Your task to perform on an android device: turn off translation in the chrome app Image 0: 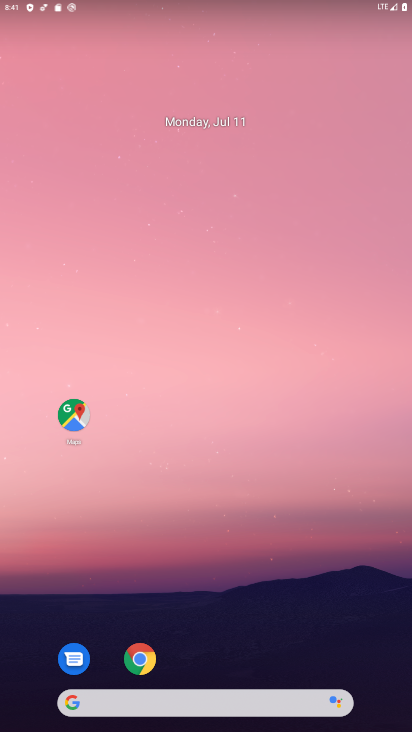
Step 0: click (136, 654)
Your task to perform on an android device: turn off translation in the chrome app Image 1: 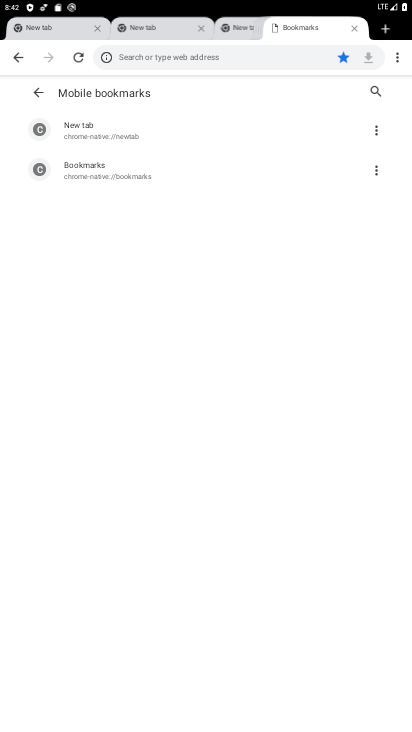
Step 1: click (395, 51)
Your task to perform on an android device: turn off translation in the chrome app Image 2: 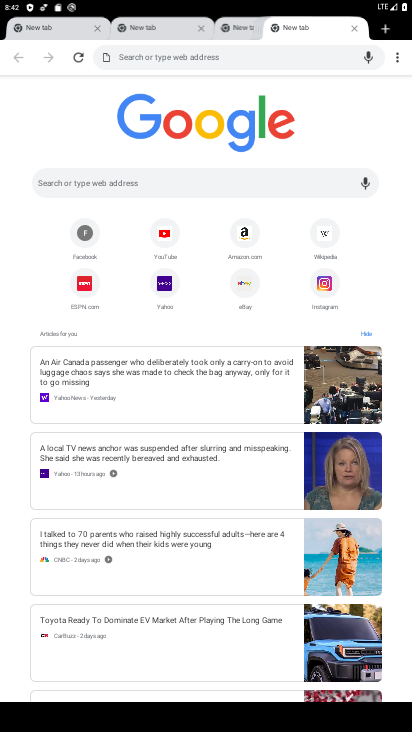
Step 2: click (395, 60)
Your task to perform on an android device: turn off translation in the chrome app Image 3: 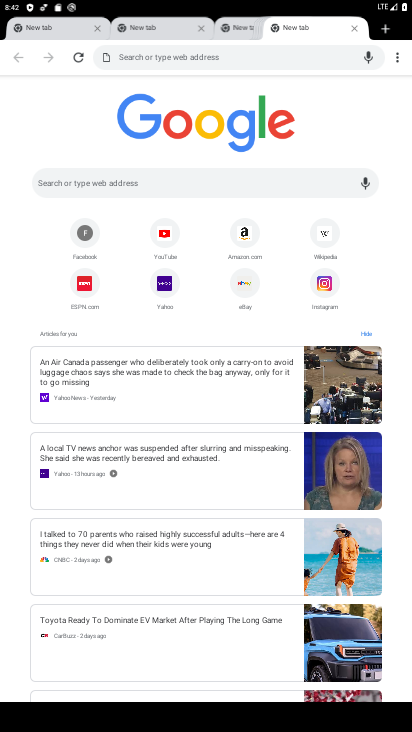
Step 3: click (397, 58)
Your task to perform on an android device: turn off translation in the chrome app Image 4: 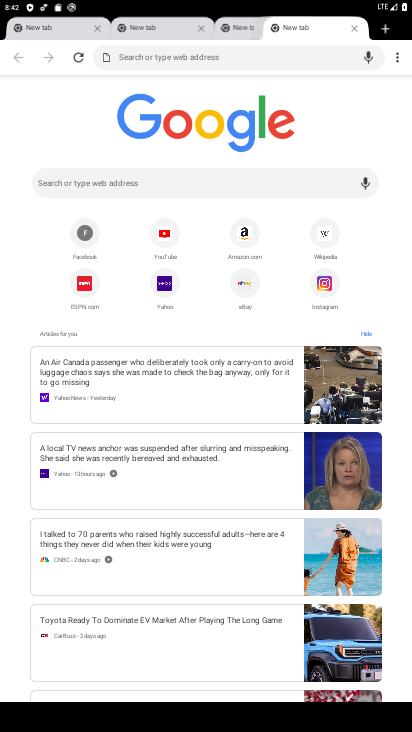
Step 4: task complete